Your task to perform on an android device: turn off translation in the chrome app Image 0: 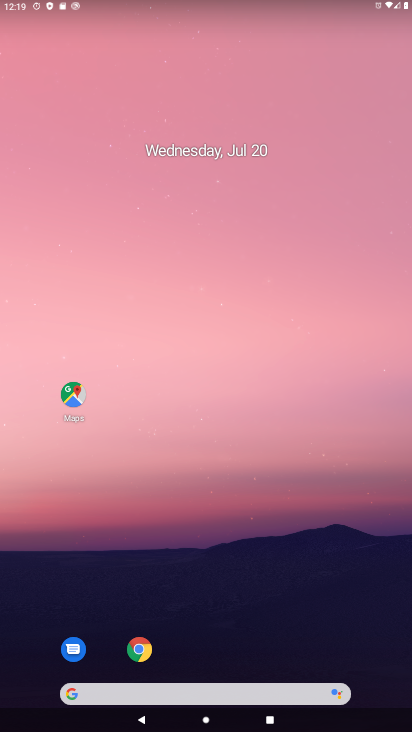
Step 0: drag from (228, 723) to (217, 195)
Your task to perform on an android device: turn off translation in the chrome app Image 1: 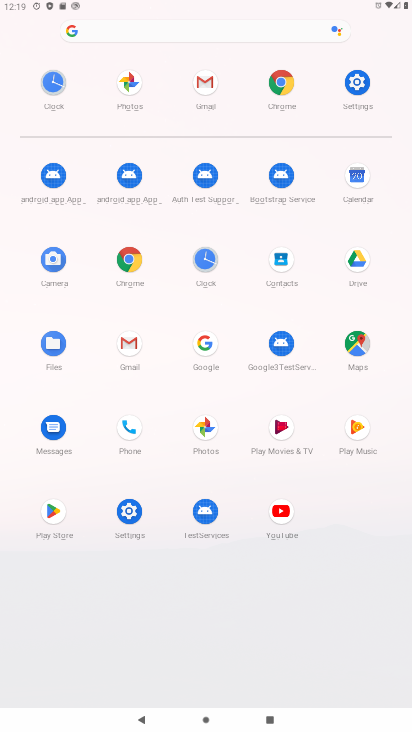
Step 1: click (131, 265)
Your task to perform on an android device: turn off translation in the chrome app Image 2: 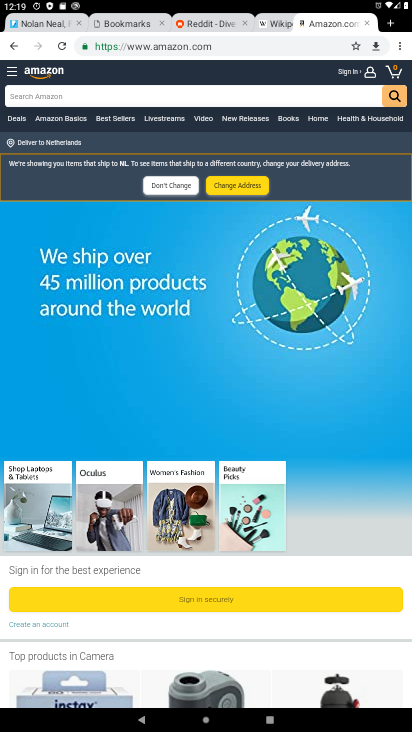
Step 2: click (398, 49)
Your task to perform on an android device: turn off translation in the chrome app Image 3: 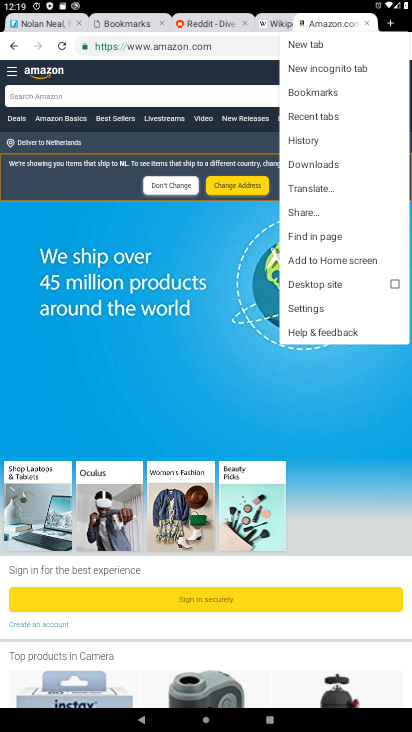
Step 3: click (311, 307)
Your task to perform on an android device: turn off translation in the chrome app Image 4: 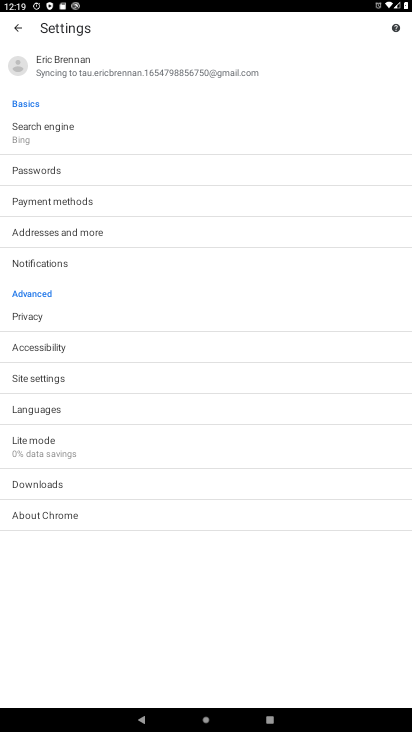
Step 4: click (41, 408)
Your task to perform on an android device: turn off translation in the chrome app Image 5: 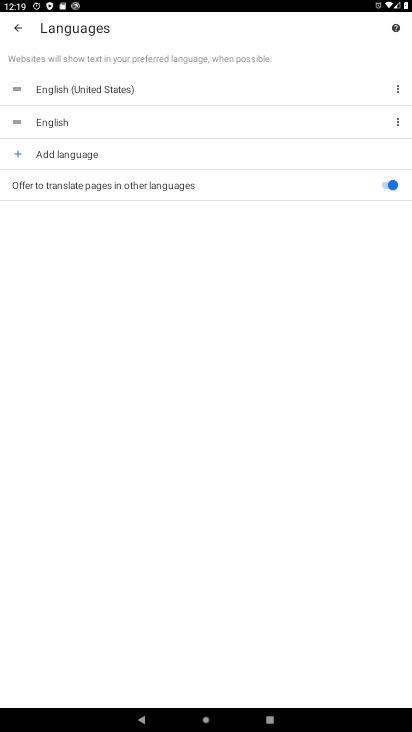
Step 5: click (389, 183)
Your task to perform on an android device: turn off translation in the chrome app Image 6: 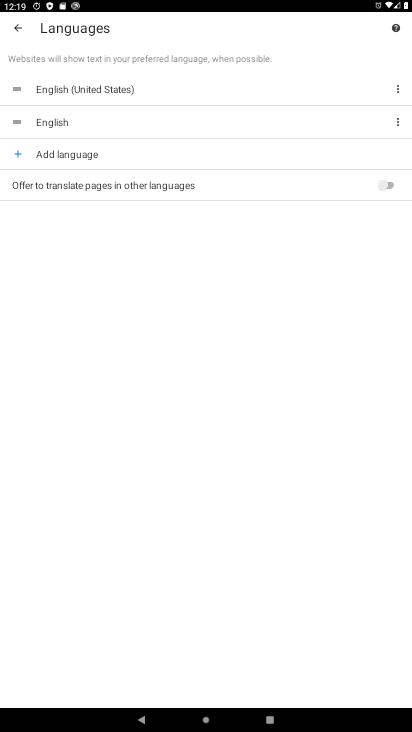
Step 6: task complete